Your task to perform on an android device: Is it going to rain today? Image 0: 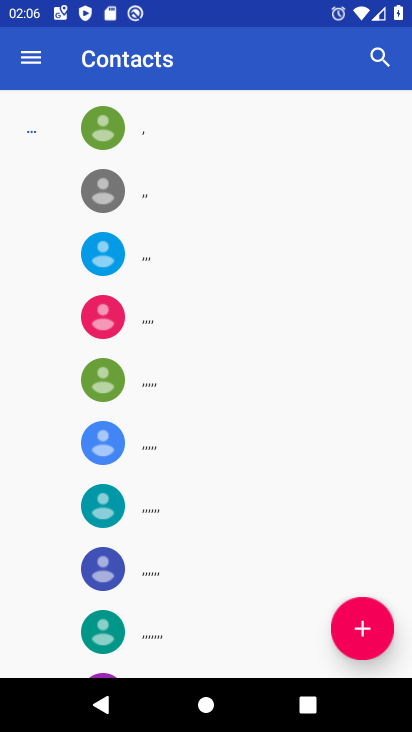
Step 0: press home button
Your task to perform on an android device: Is it going to rain today? Image 1: 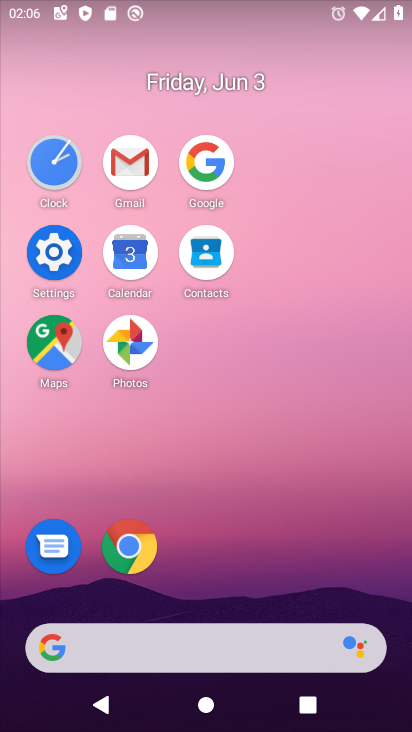
Step 1: click (204, 148)
Your task to perform on an android device: Is it going to rain today? Image 2: 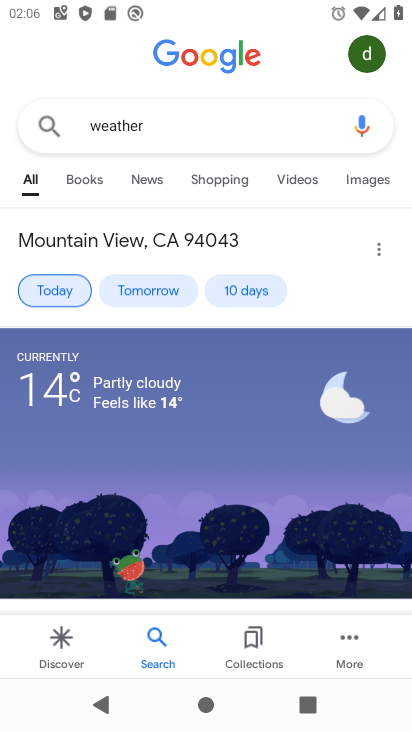
Step 2: click (215, 136)
Your task to perform on an android device: Is it going to rain today? Image 3: 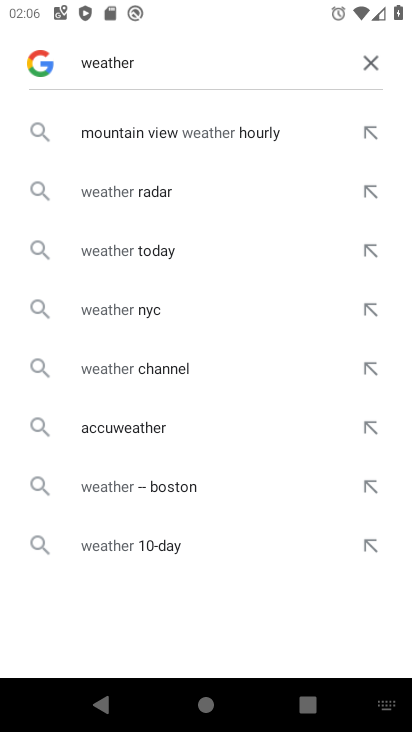
Step 3: click (370, 58)
Your task to perform on an android device: Is it going to rain today? Image 4: 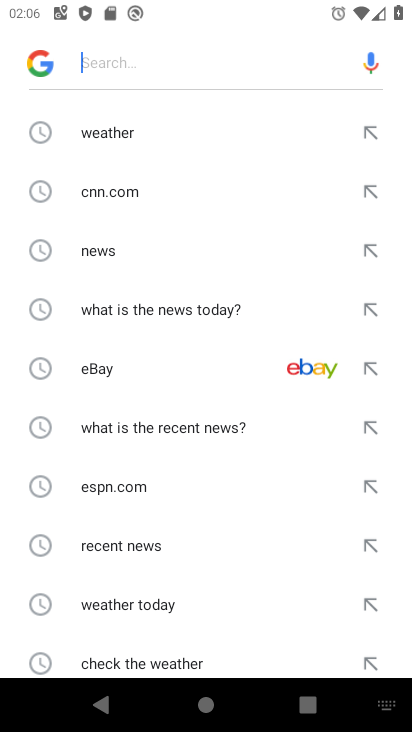
Step 4: drag from (178, 481) to (162, 129)
Your task to perform on an android device: Is it going to rain today? Image 5: 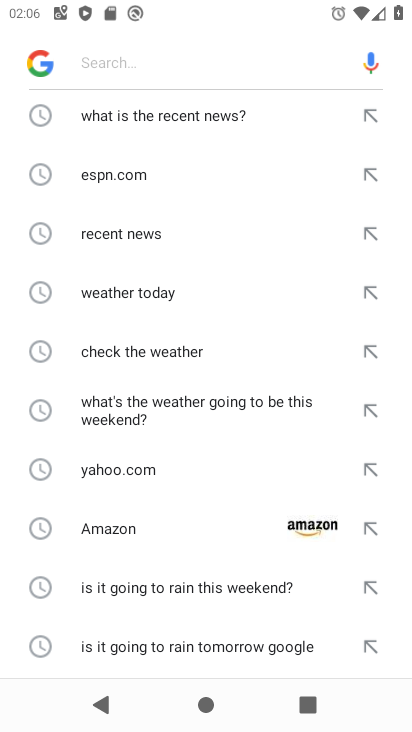
Step 5: drag from (186, 559) to (174, 296)
Your task to perform on an android device: Is it going to rain today? Image 6: 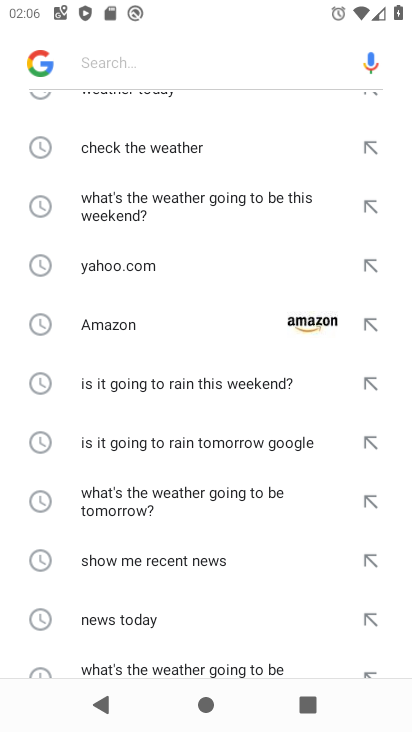
Step 6: drag from (243, 152) to (300, 544)
Your task to perform on an android device: Is it going to rain today? Image 7: 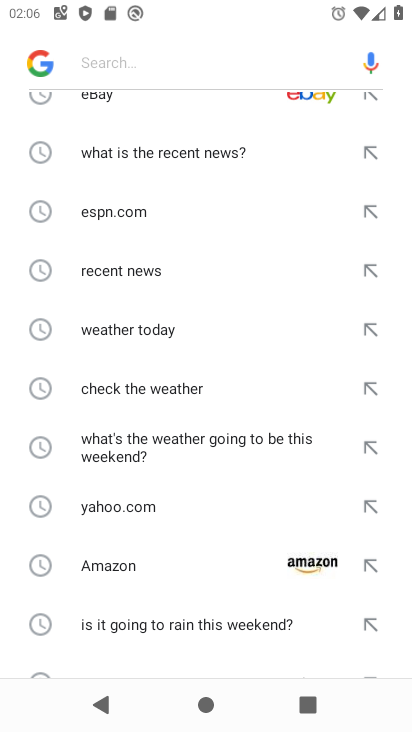
Step 7: drag from (188, 138) to (185, 478)
Your task to perform on an android device: Is it going to rain today? Image 8: 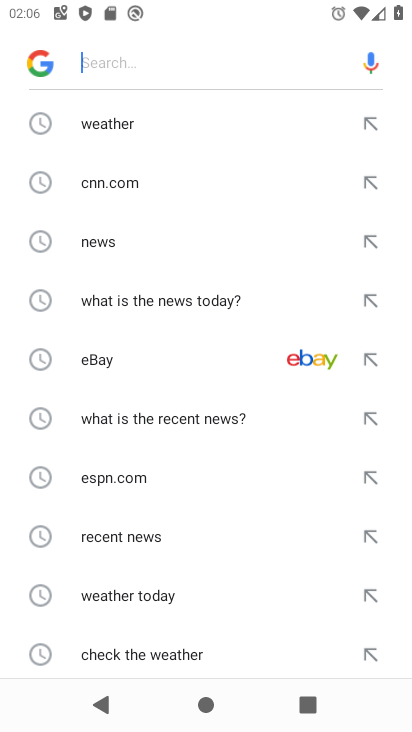
Step 8: click (174, 113)
Your task to perform on an android device: Is it going to rain today? Image 9: 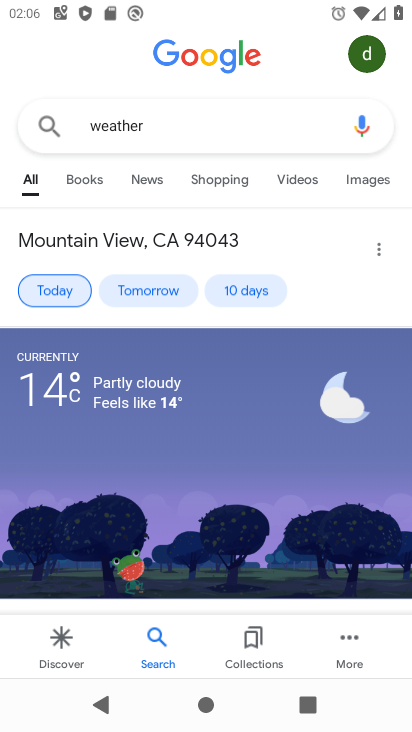
Step 9: task complete